Your task to perform on an android device: Do I have any events this weekend? Image 0: 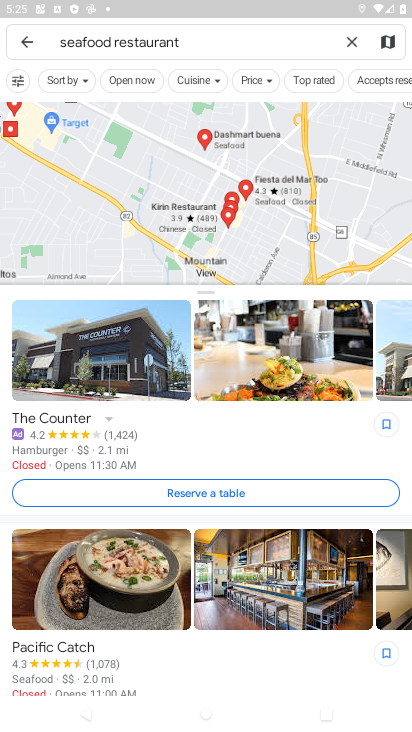
Step 0: drag from (211, 536) to (262, 151)
Your task to perform on an android device: Do I have any events this weekend? Image 1: 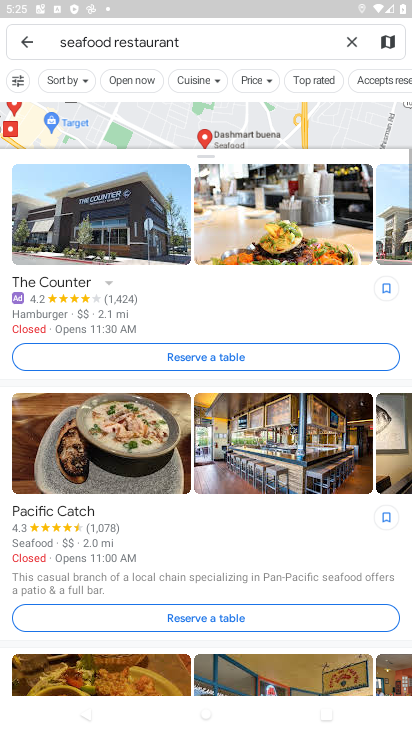
Step 1: press home button
Your task to perform on an android device: Do I have any events this weekend? Image 2: 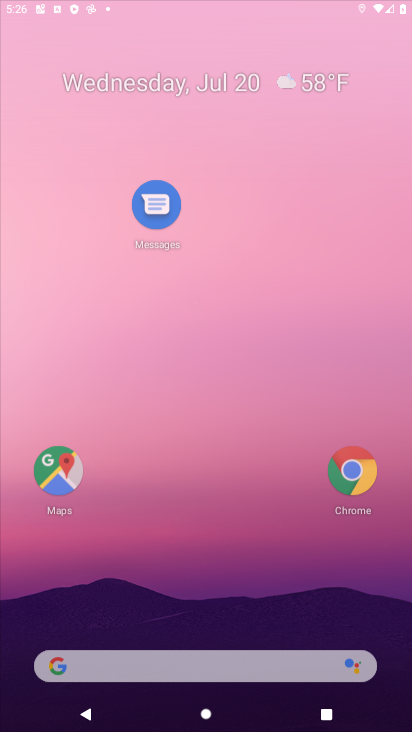
Step 2: press home button
Your task to perform on an android device: Do I have any events this weekend? Image 3: 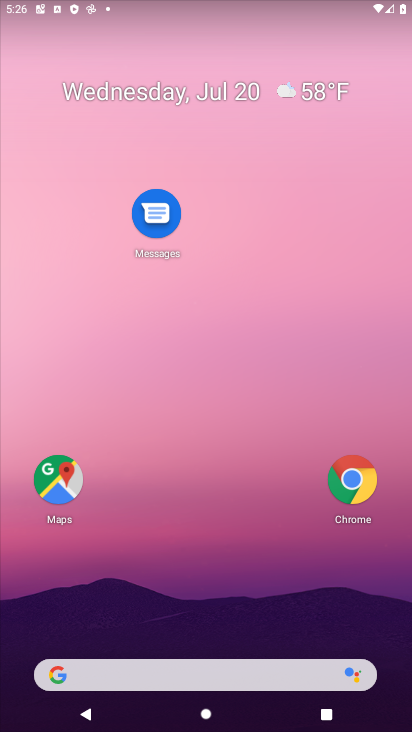
Step 3: press home button
Your task to perform on an android device: Do I have any events this weekend? Image 4: 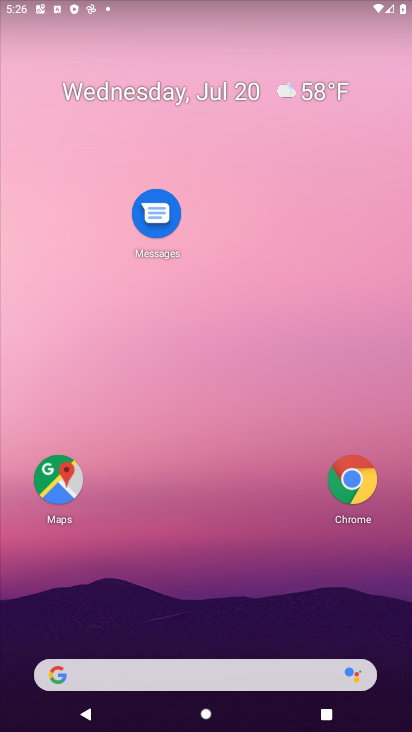
Step 4: drag from (202, 600) to (219, 113)
Your task to perform on an android device: Do I have any events this weekend? Image 5: 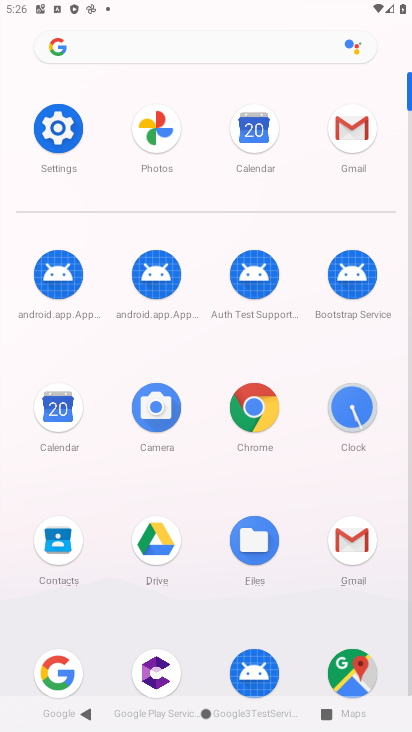
Step 5: click (55, 416)
Your task to perform on an android device: Do I have any events this weekend? Image 6: 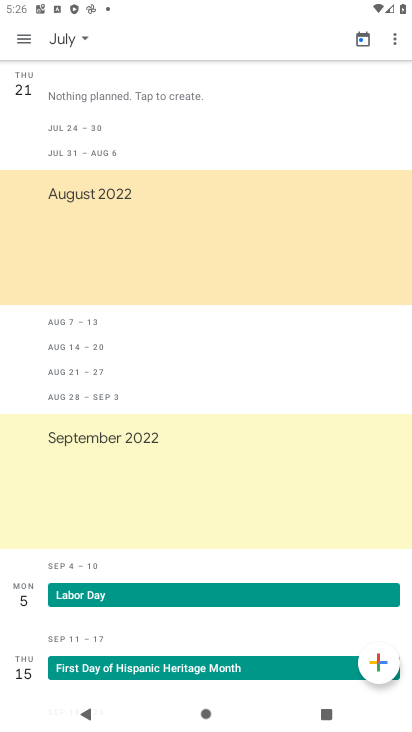
Step 6: click (55, 36)
Your task to perform on an android device: Do I have any events this weekend? Image 7: 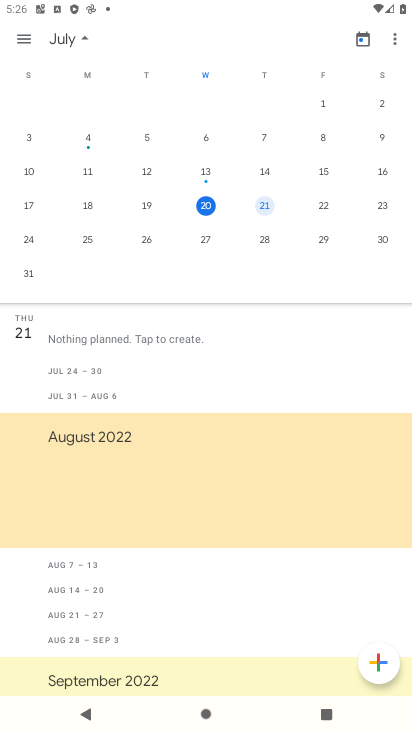
Step 7: click (18, 46)
Your task to perform on an android device: Do I have any events this weekend? Image 8: 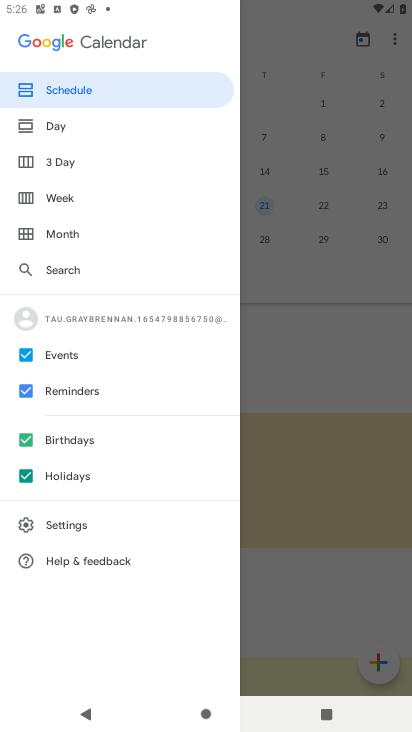
Step 8: click (63, 196)
Your task to perform on an android device: Do I have any events this weekend? Image 9: 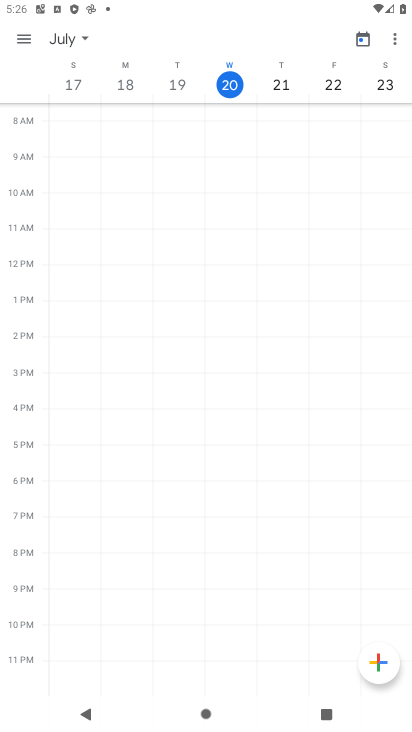
Step 9: task complete